Your task to perform on an android device: Open battery settings Image 0: 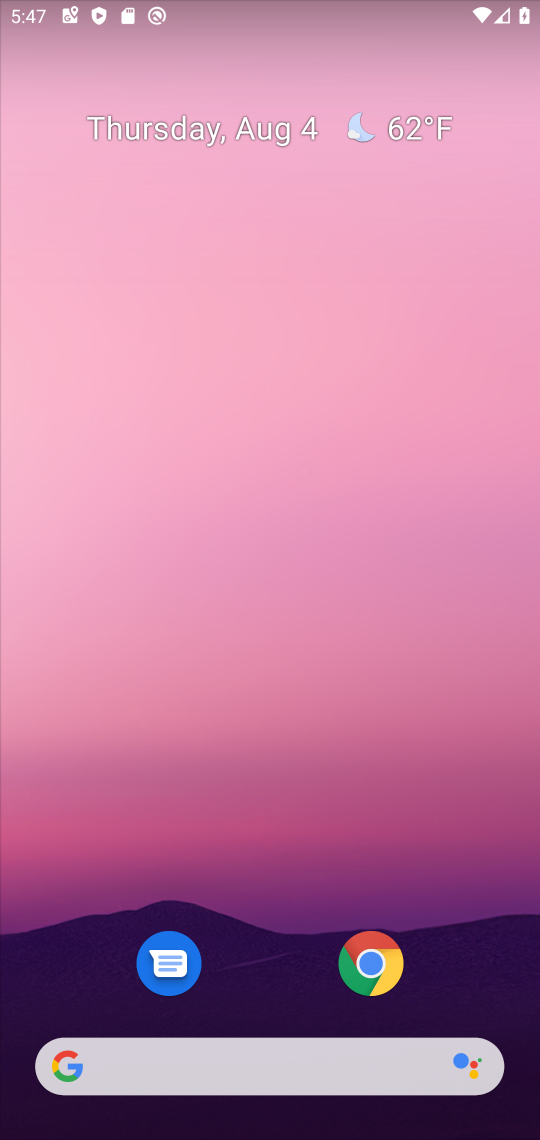
Step 0: drag from (288, 845) to (312, 166)
Your task to perform on an android device: Open battery settings Image 1: 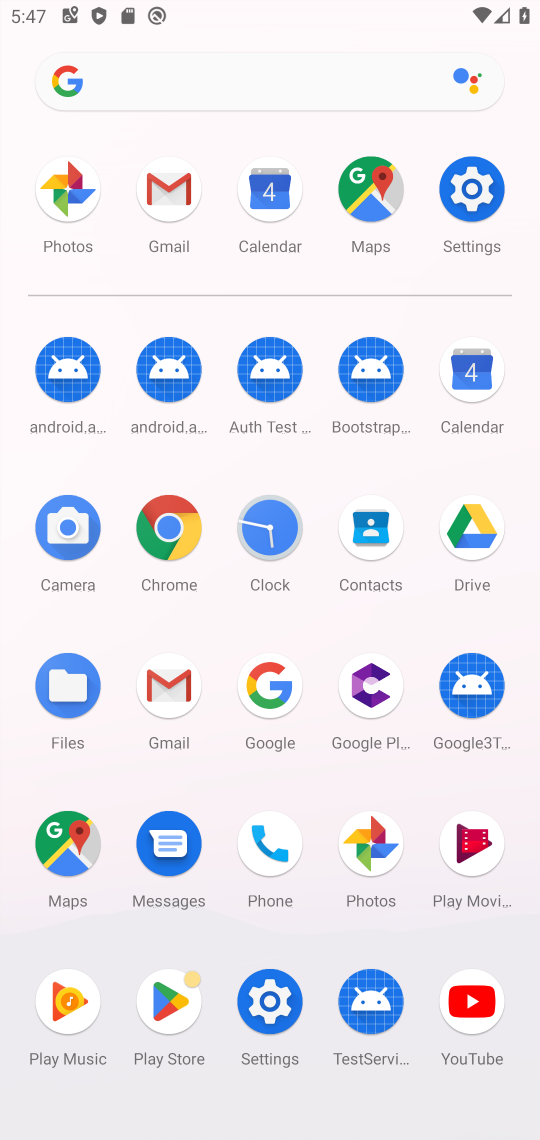
Step 1: click (477, 186)
Your task to perform on an android device: Open battery settings Image 2: 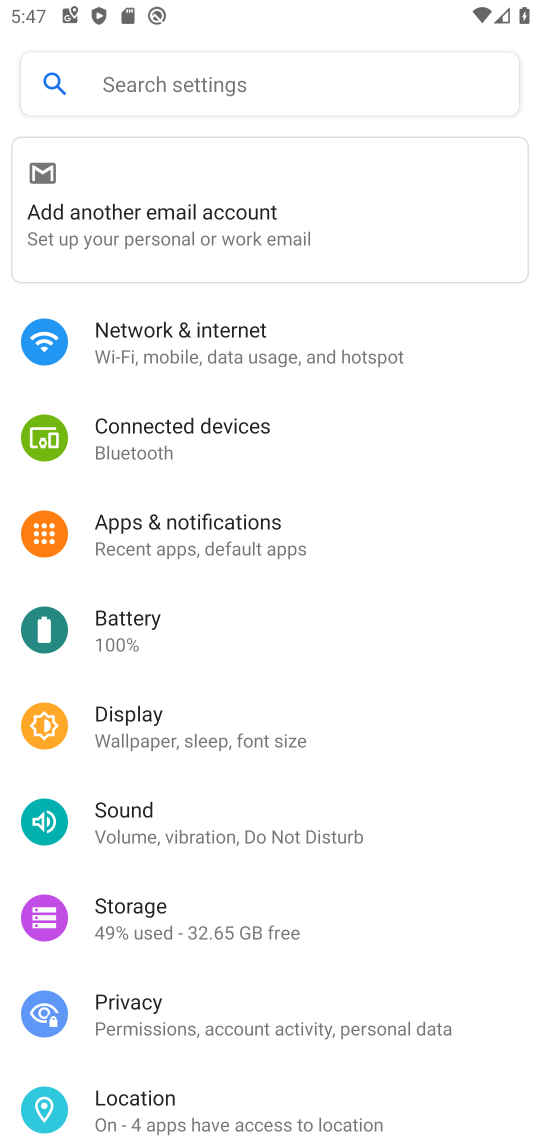
Step 2: click (140, 614)
Your task to perform on an android device: Open battery settings Image 3: 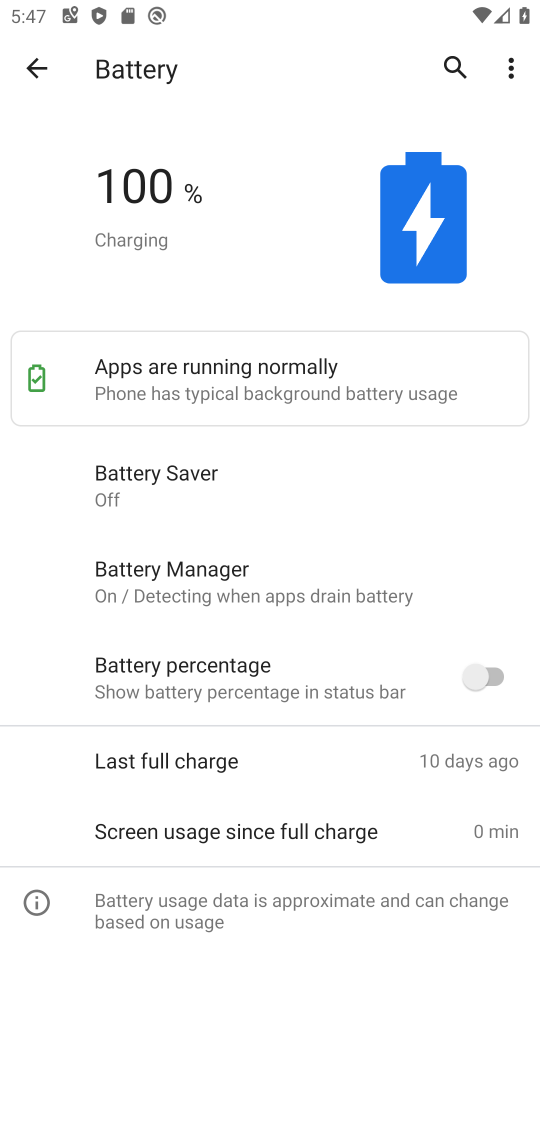
Step 3: task complete